Your task to perform on an android device: check the backup settings in the google photos Image 0: 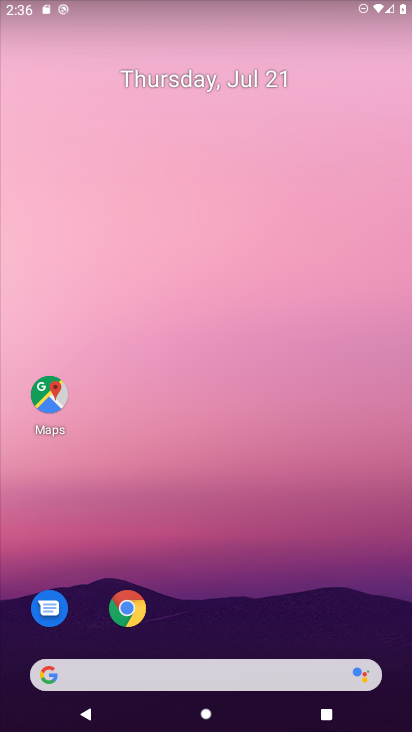
Step 0: drag from (243, 594) to (250, 148)
Your task to perform on an android device: check the backup settings in the google photos Image 1: 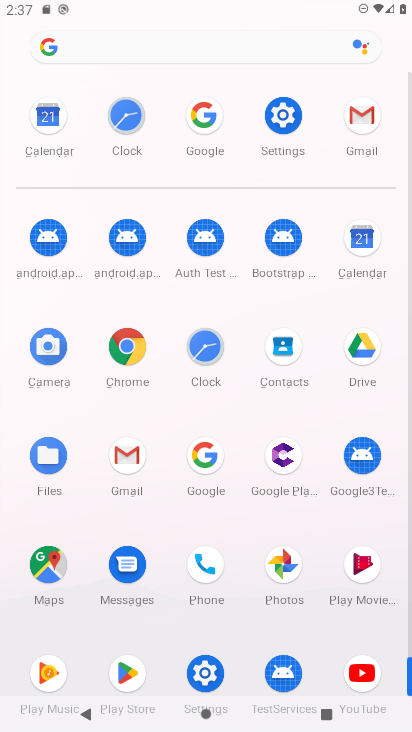
Step 1: click (281, 574)
Your task to perform on an android device: check the backup settings in the google photos Image 2: 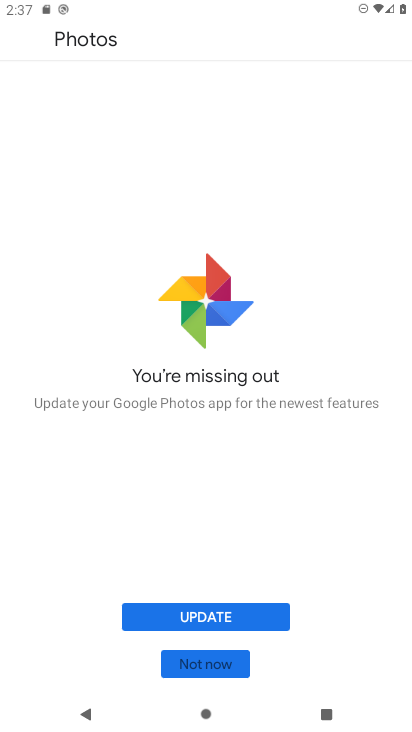
Step 2: click (211, 655)
Your task to perform on an android device: check the backup settings in the google photos Image 3: 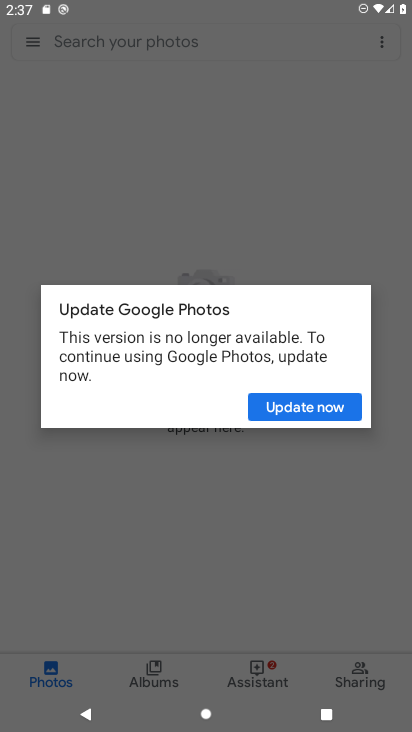
Step 3: click (308, 415)
Your task to perform on an android device: check the backup settings in the google photos Image 4: 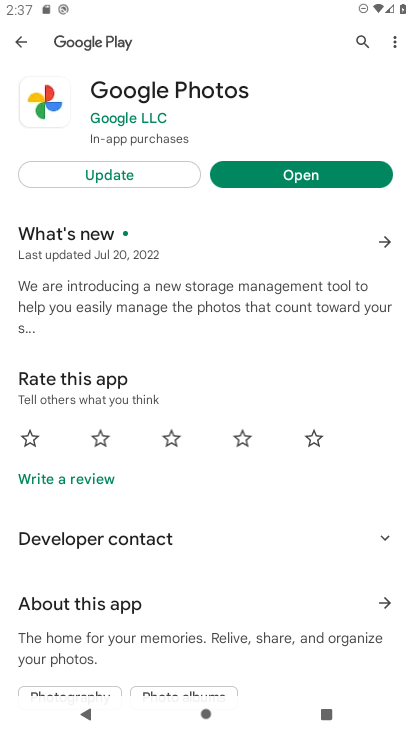
Step 4: click (267, 175)
Your task to perform on an android device: check the backup settings in the google photos Image 5: 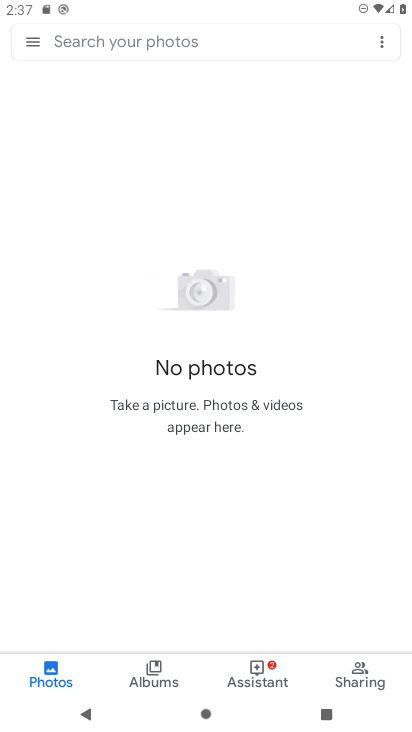
Step 5: click (37, 51)
Your task to perform on an android device: check the backup settings in the google photos Image 6: 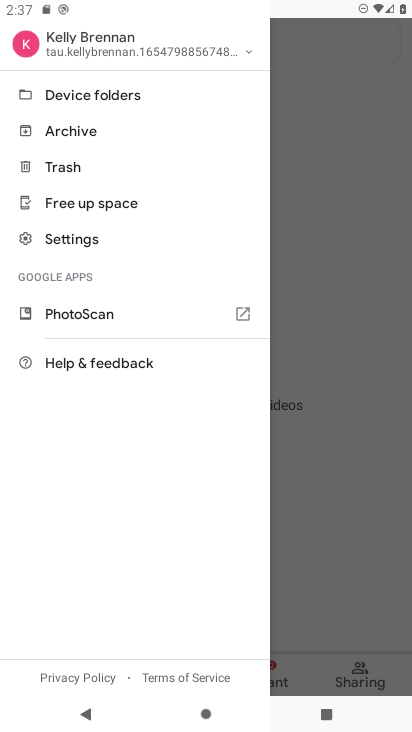
Step 6: click (95, 250)
Your task to perform on an android device: check the backup settings in the google photos Image 7: 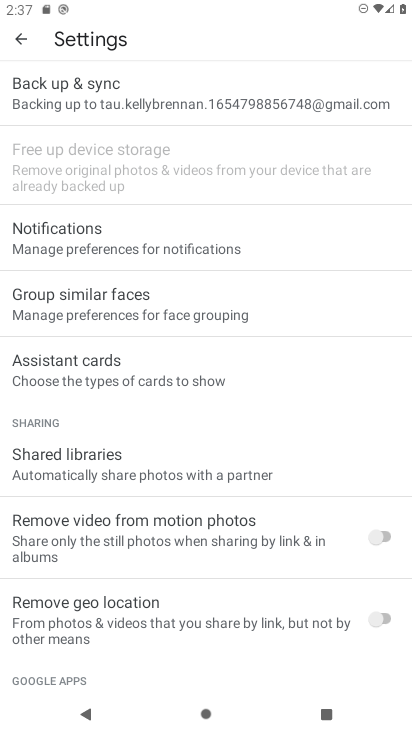
Step 7: click (143, 112)
Your task to perform on an android device: check the backup settings in the google photos Image 8: 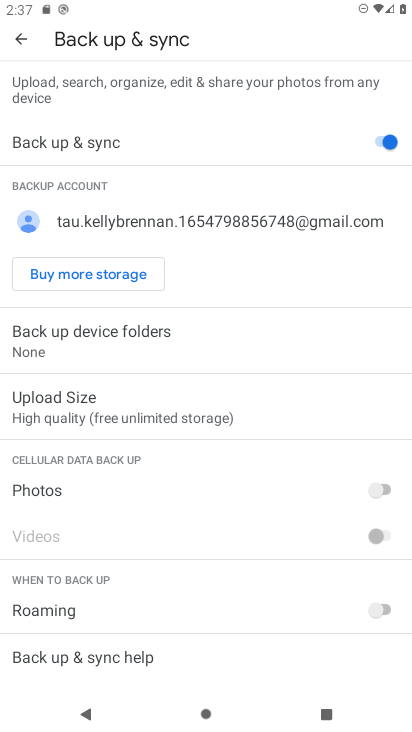
Step 8: task complete